Your task to perform on an android device: install app "Fetch Rewards" Image 0: 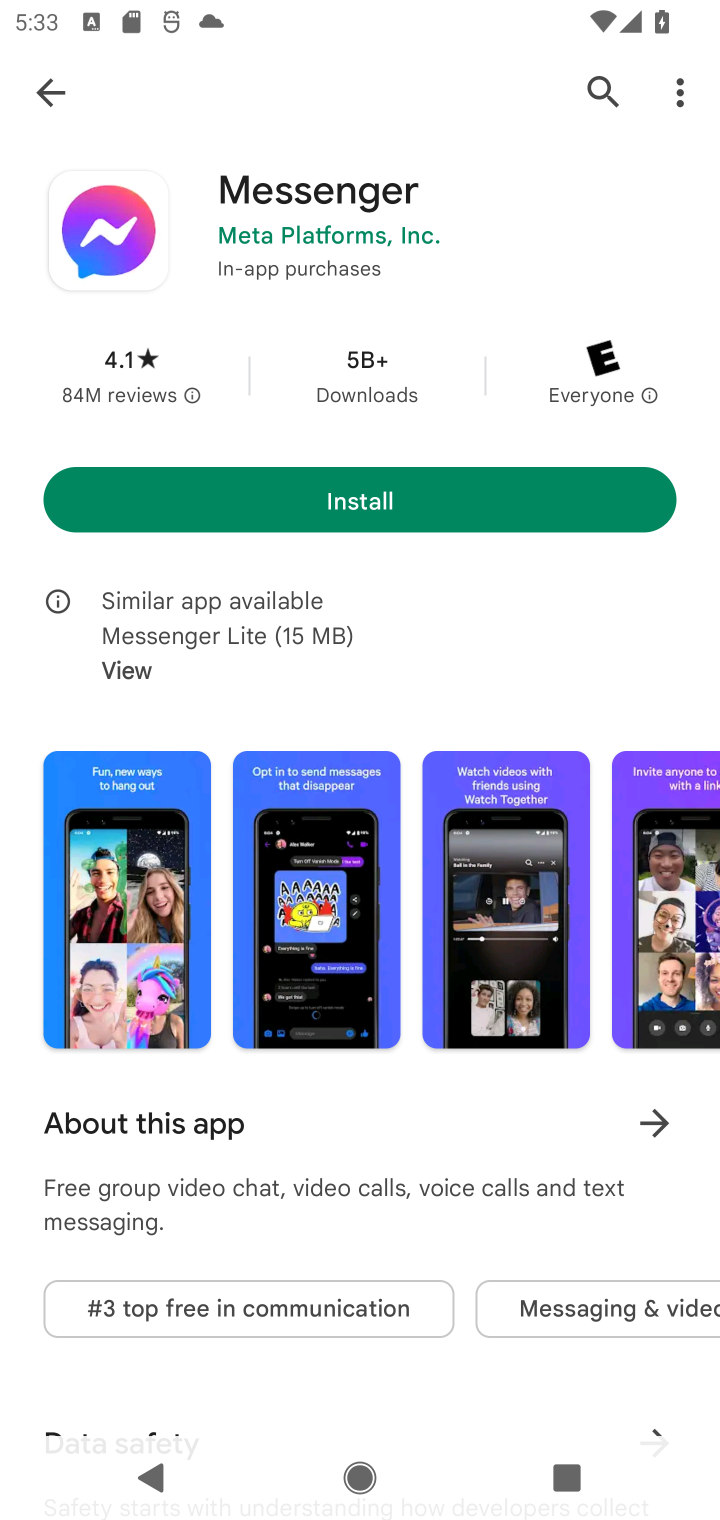
Step 0: press home button
Your task to perform on an android device: install app "Fetch Rewards" Image 1: 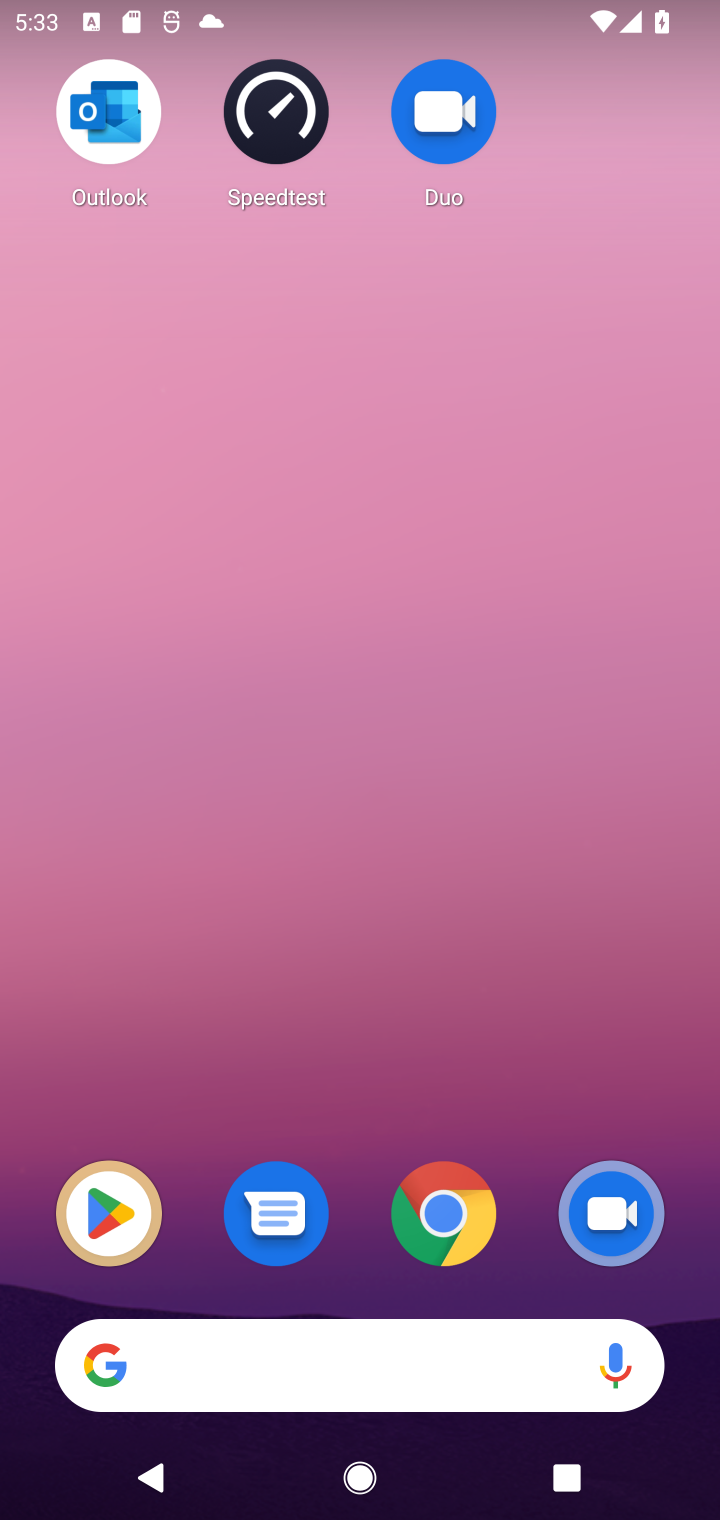
Step 1: drag from (506, 1089) to (512, 1)
Your task to perform on an android device: install app "Fetch Rewards" Image 2: 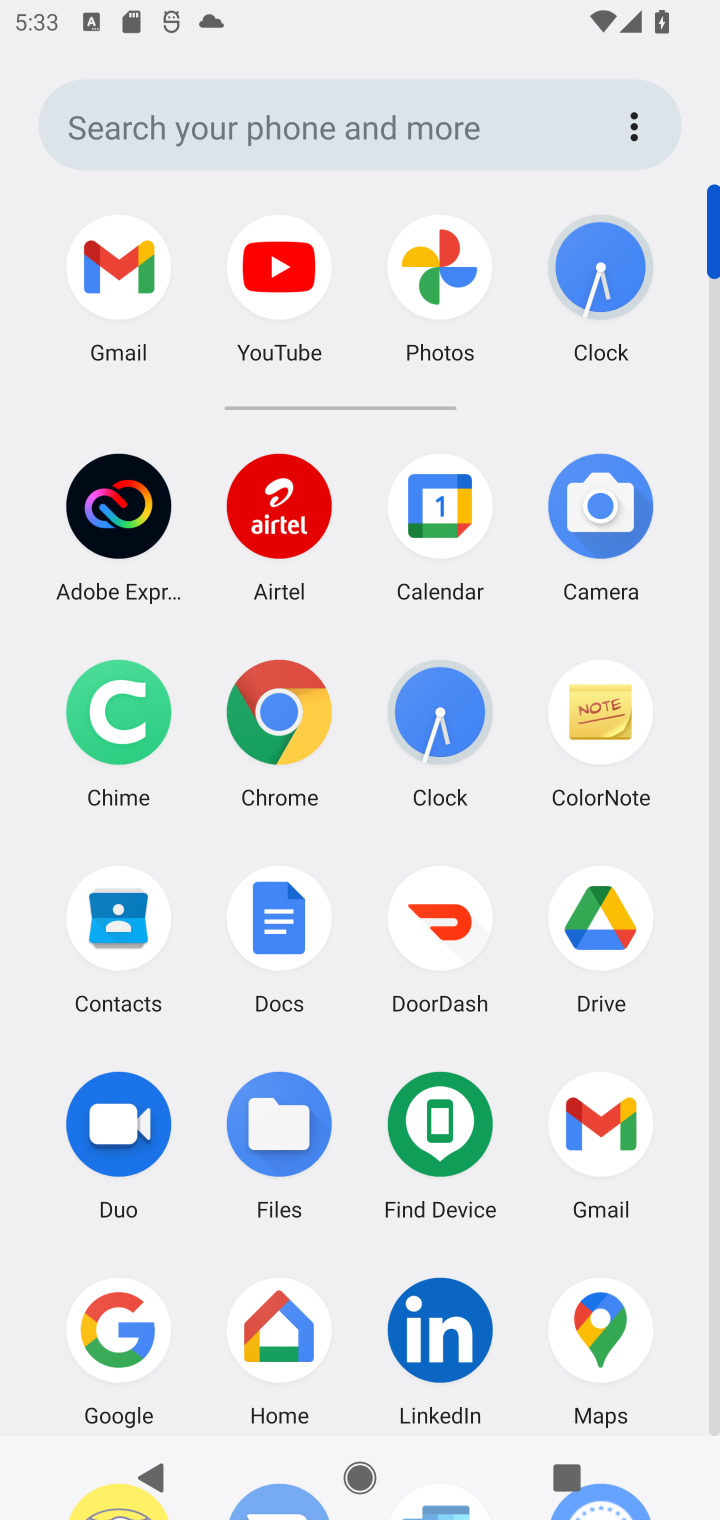
Step 2: drag from (340, 1278) to (404, 670)
Your task to perform on an android device: install app "Fetch Rewards" Image 3: 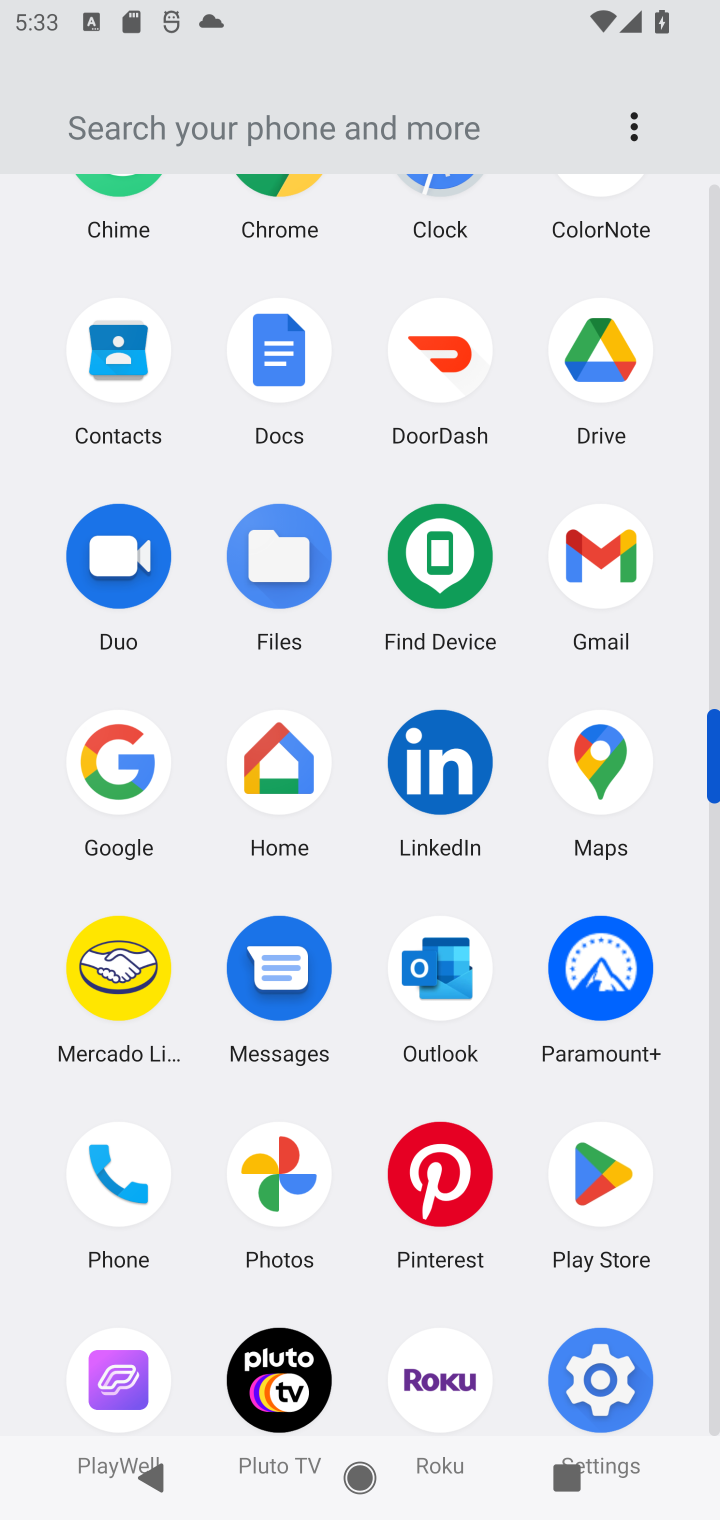
Step 3: click (592, 1172)
Your task to perform on an android device: install app "Fetch Rewards" Image 4: 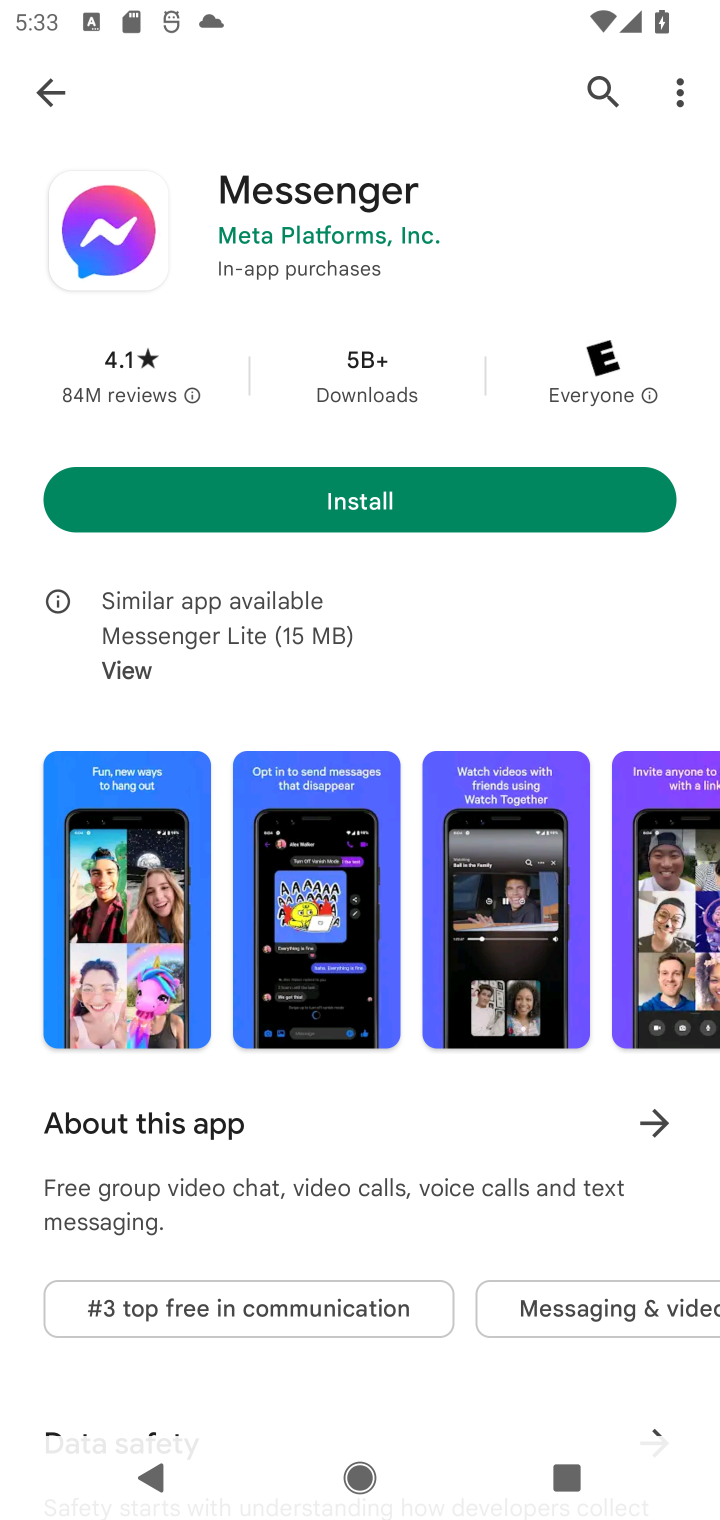
Step 4: click (600, 105)
Your task to perform on an android device: install app "Fetch Rewards" Image 5: 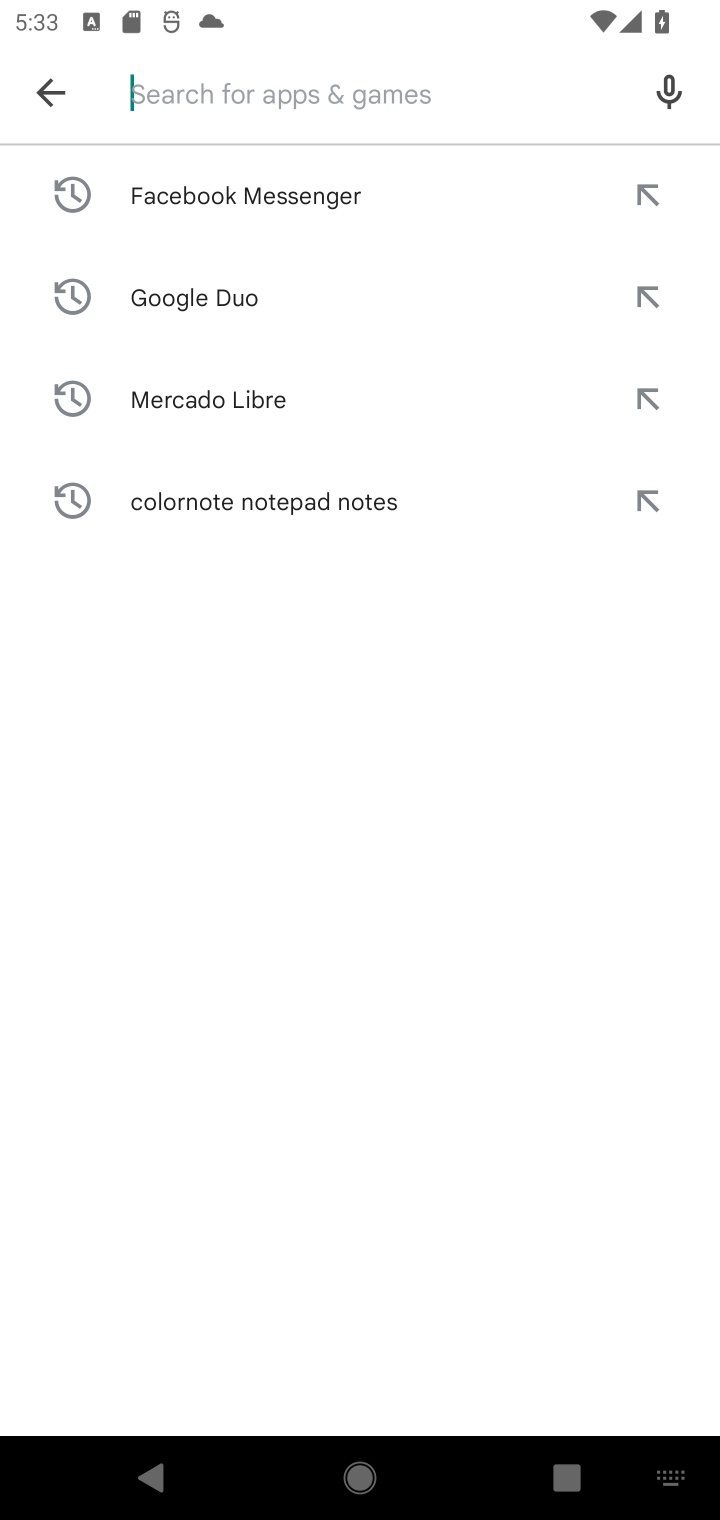
Step 5: type "Fetch Rewards"
Your task to perform on an android device: install app "Fetch Rewards" Image 6: 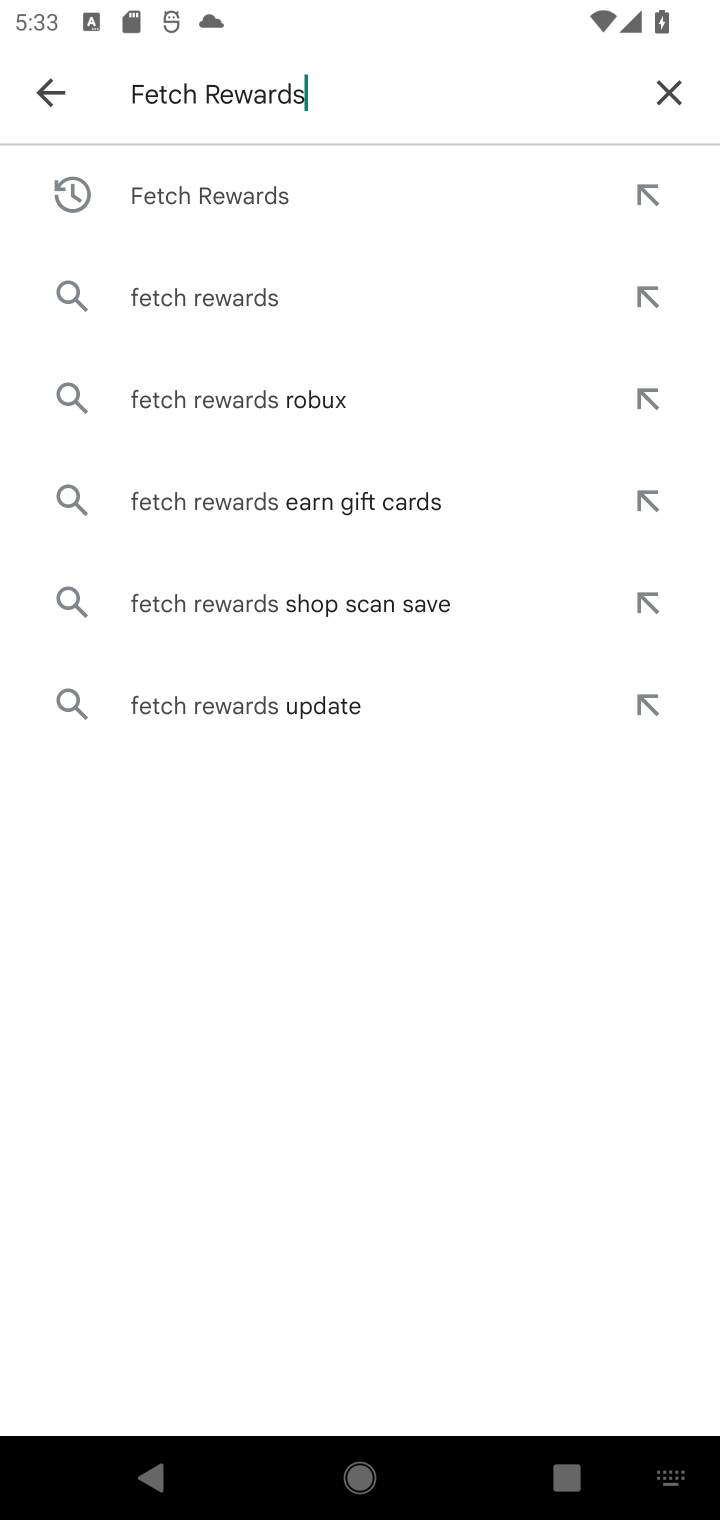
Step 6: press enter
Your task to perform on an android device: install app "Fetch Rewards" Image 7: 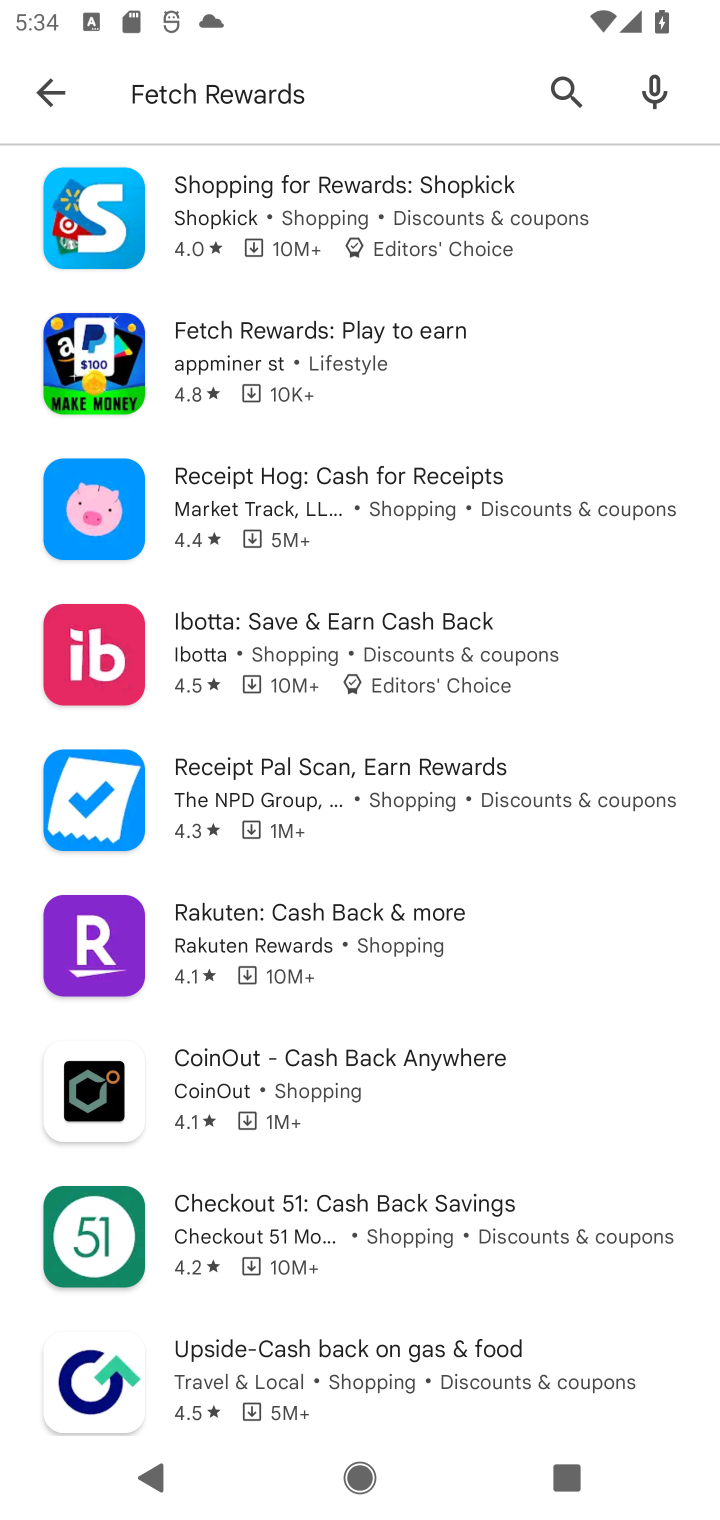
Step 7: click (226, 330)
Your task to perform on an android device: install app "Fetch Rewards" Image 8: 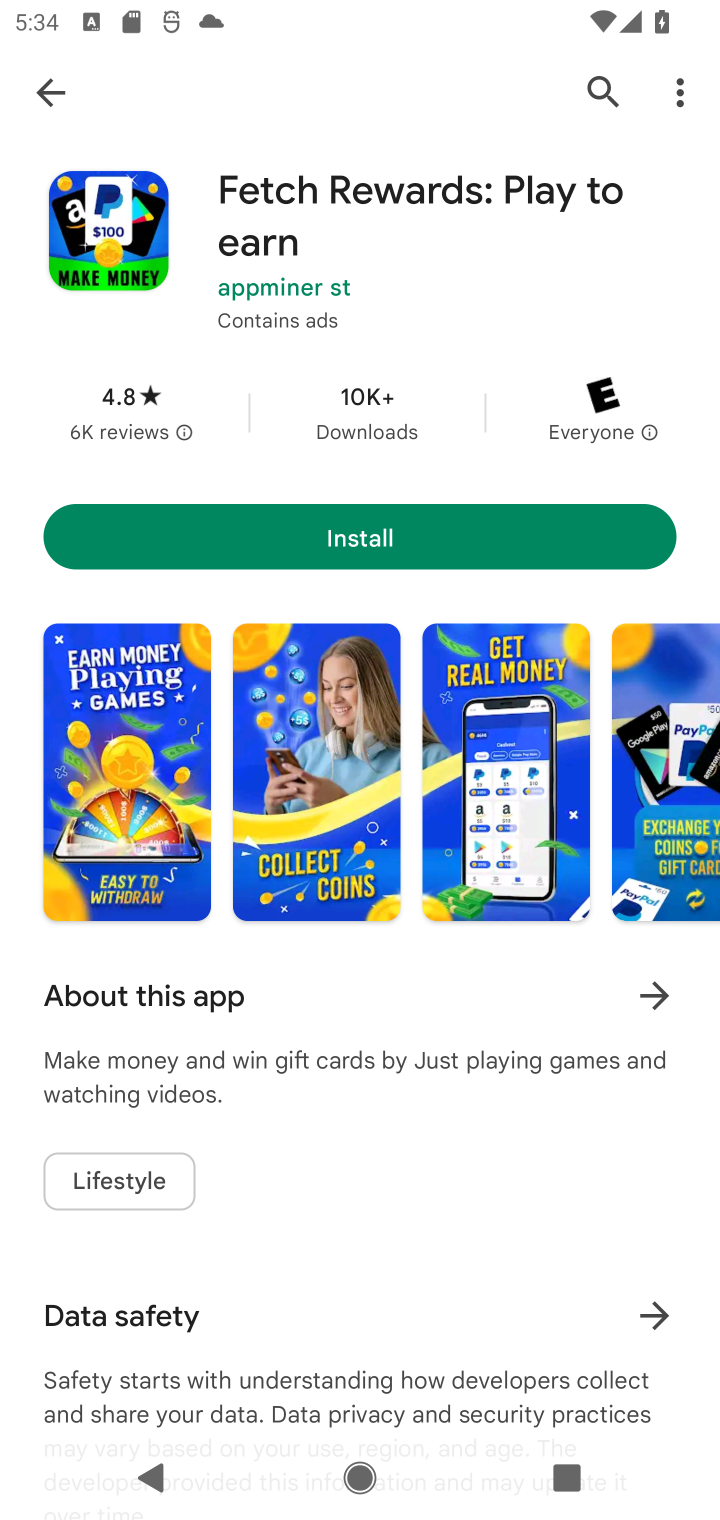
Step 8: click (441, 538)
Your task to perform on an android device: install app "Fetch Rewards" Image 9: 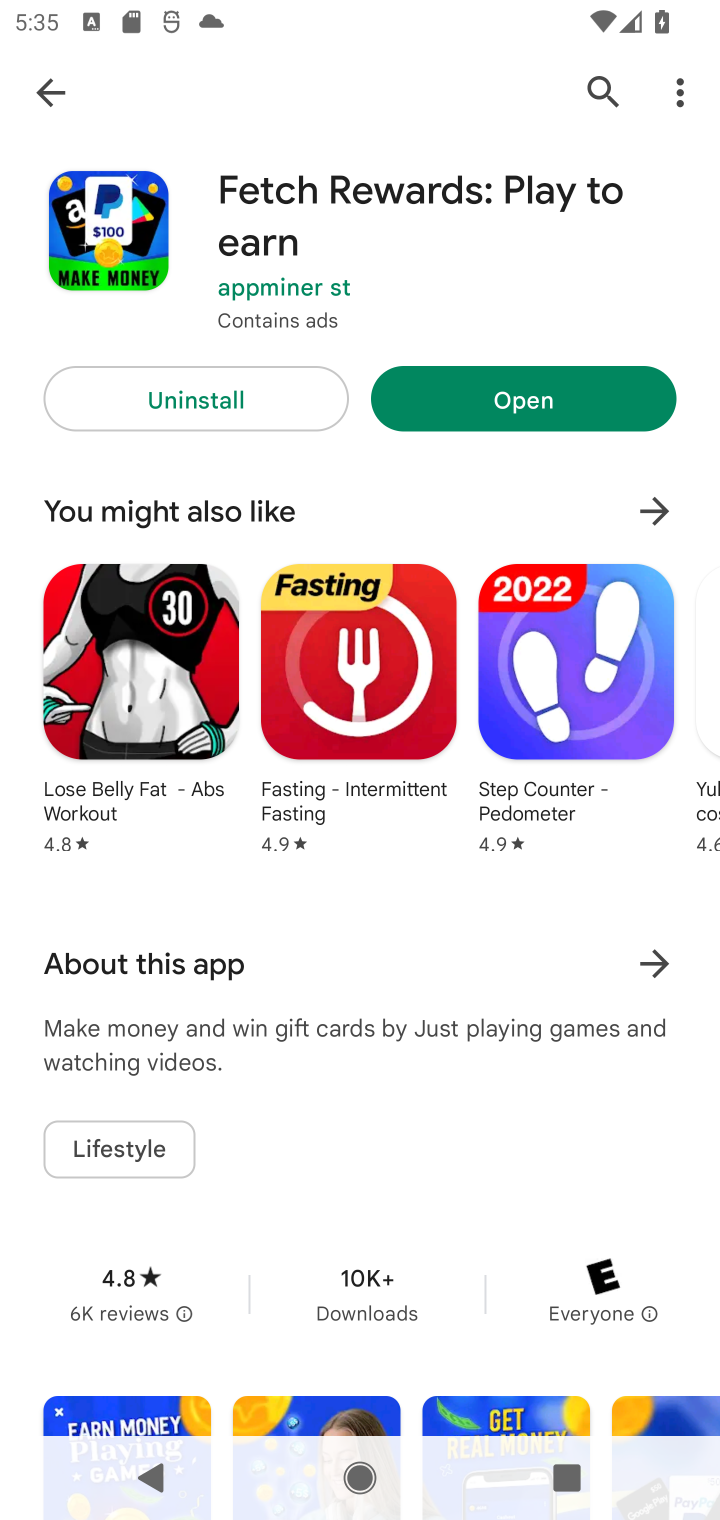
Step 9: task complete